Your task to perform on an android device: read, delete, or share a saved page in the chrome app Image 0: 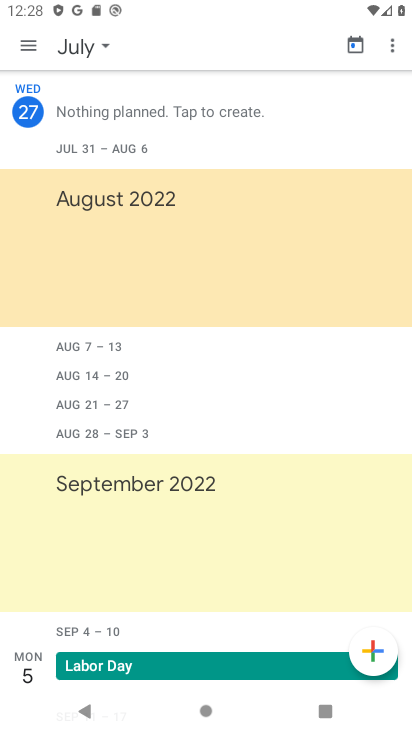
Step 0: press home button
Your task to perform on an android device: read, delete, or share a saved page in the chrome app Image 1: 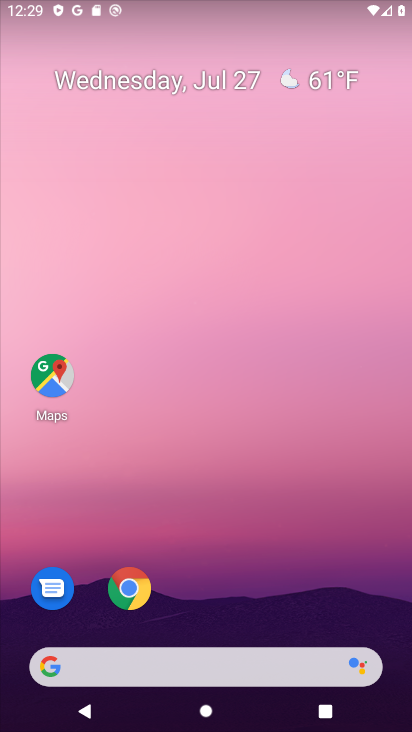
Step 1: click (119, 582)
Your task to perform on an android device: read, delete, or share a saved page in the chrome app Image 2: 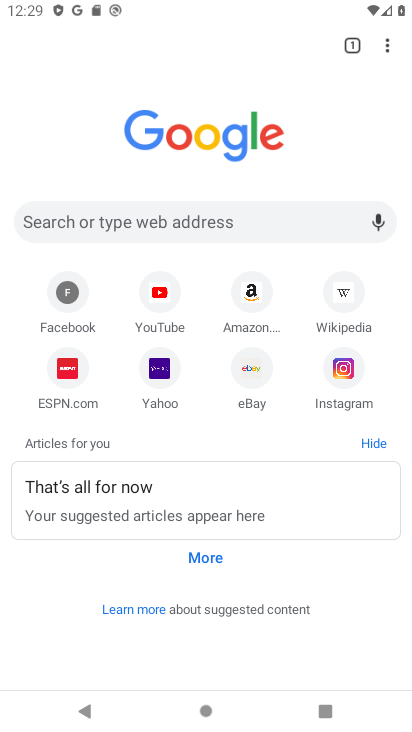
Step 2: click (384, 44)
Your task to perform on an android device: read, delete, or share a saved page in the chrome app Image 3: 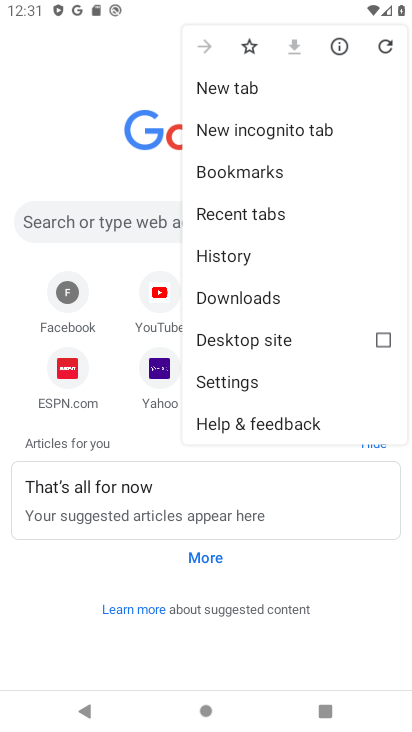
Step 3: click (236, 301)
Your task to perform on an android device: read, delete, or share a saved page in the chrome app Image 4: 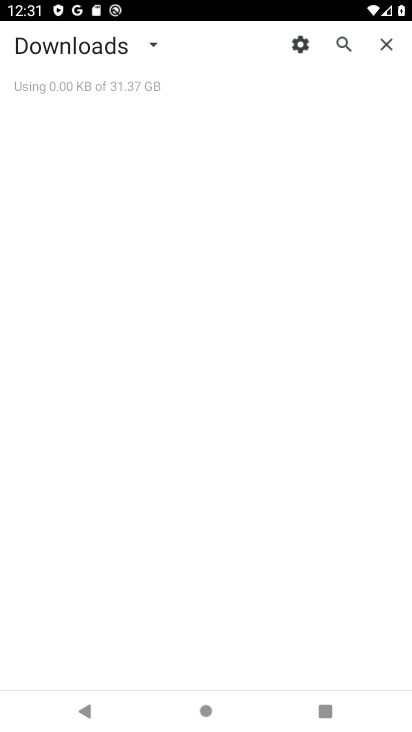
Step 4: task complete